Your task to perform on an android device: toggle improve location accuracy Image 0: 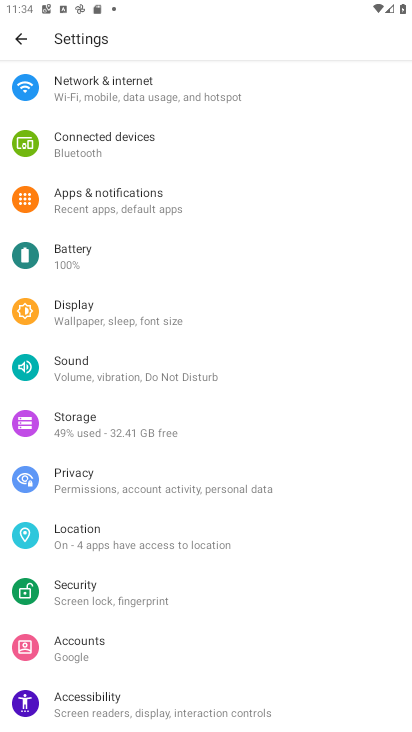
Step 0: click (102, 529)
Your task to perform on an android device: toggle improve location accuracy Image 1: 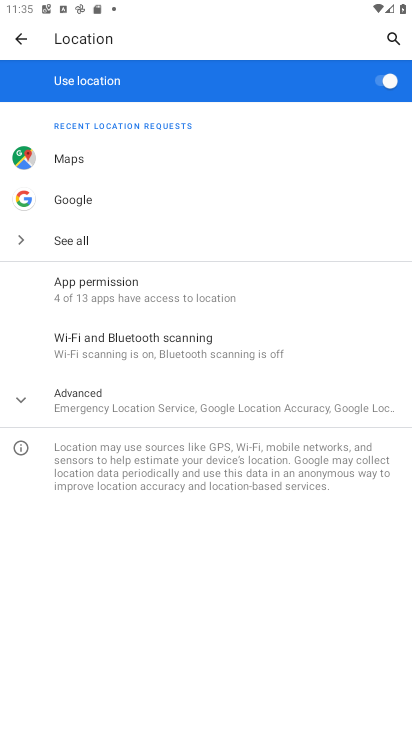
Step 1: click (184, 404)
Your task to perform on an android device: toggle improve location accuracy Image 2: 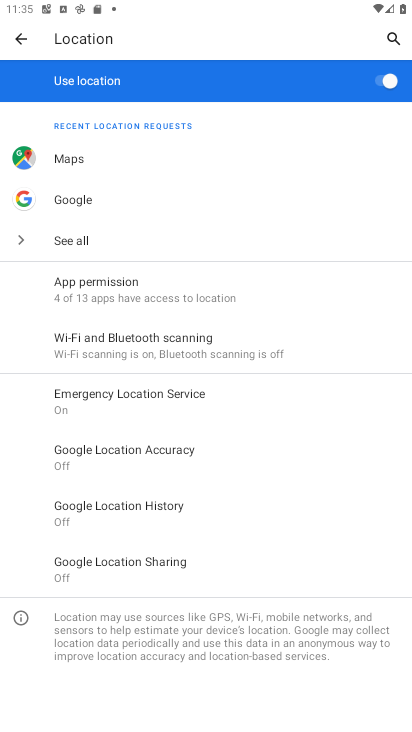
Step 2: click (153, 453)
Your task to perform on an android device: toggle improve location accuracy Image 3: 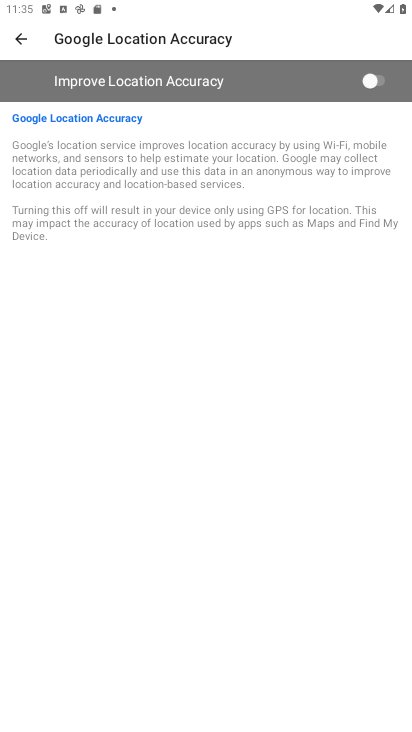
Step 3: click (378, 84)
Your task to perform on an android device: toggle improve location accuracy Image 4: 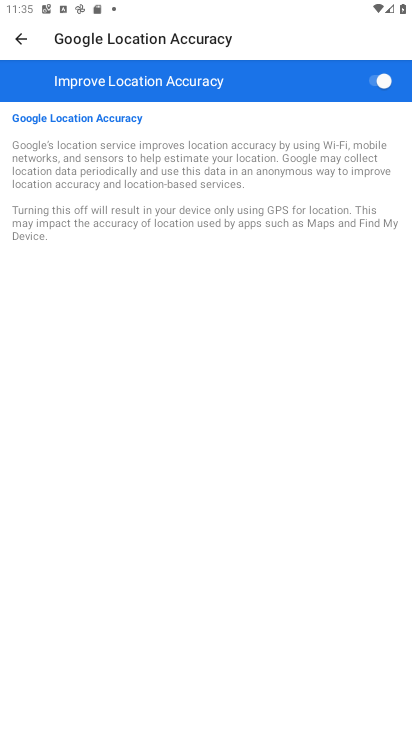
Step 4: task complete